Your task to perform on an android device: Go to sound settings Image 0: 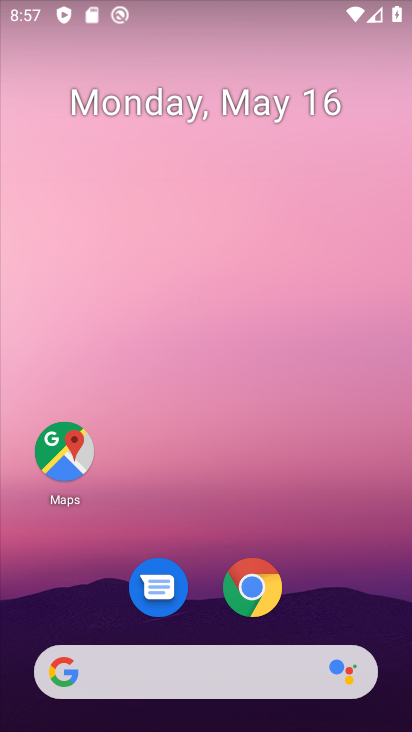
Step 0: drag from (82, 615) to (154, 196)
Your task to perform on an android device: Go to sound settings Image 1: 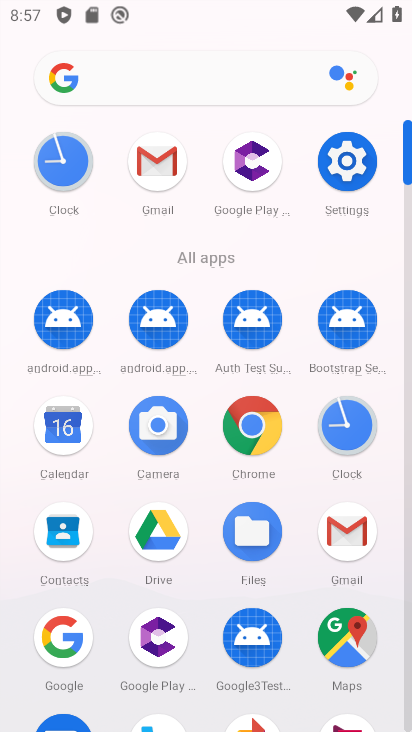
Step 1: drag from (173, 538) to (235, 287)
Your task to perform on an android device: Go to sound settings Image 2: 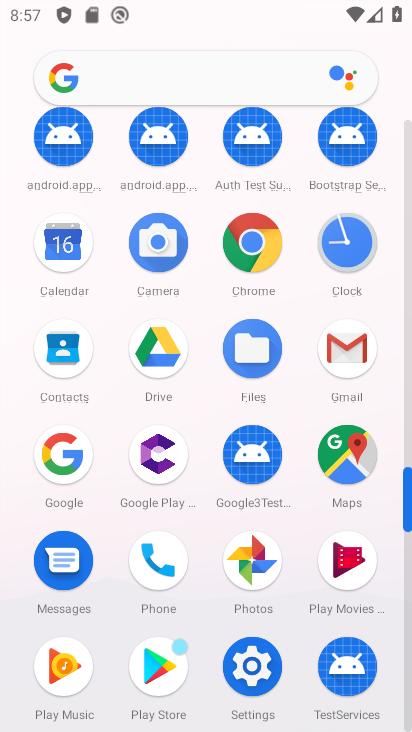
Step 2: click (242, 683)
Your task to perform on an android device: Go to sound settings Image 3: 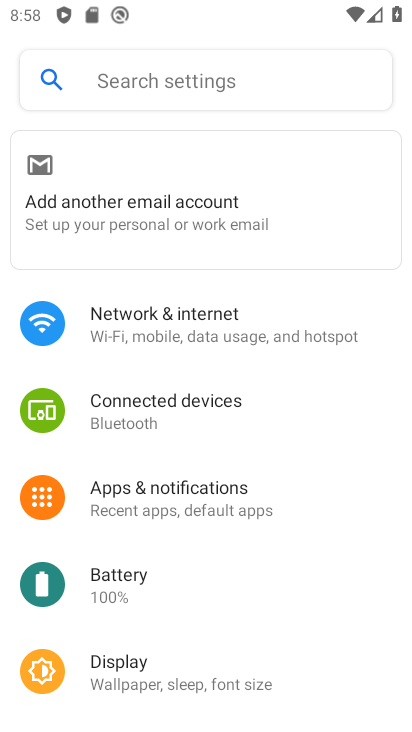
Step 3: drag from (158, 676) to (234, 266)
Your task to perform on an android device: Go to sound settings Image 4: 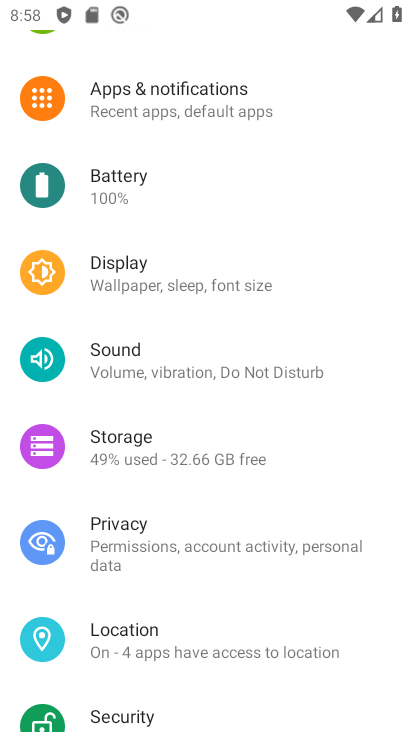
Step 4: click (155, 364)
Your task to perform on an android device: Go to sound settings Image 5: 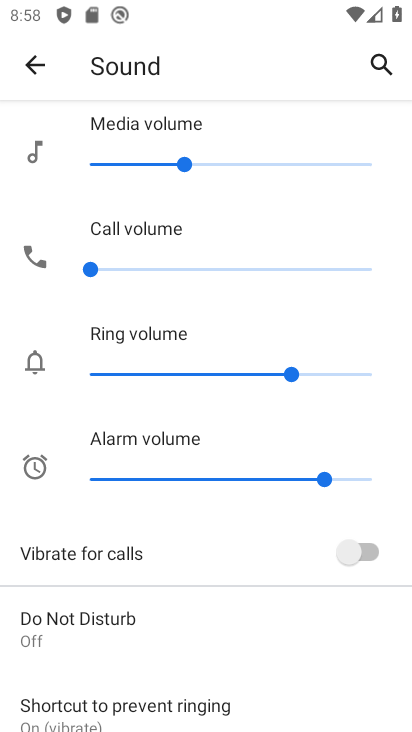
Step 5: task complete